Your task to perform on an android device: see tabs open on other devices in the chrome app Image 0: 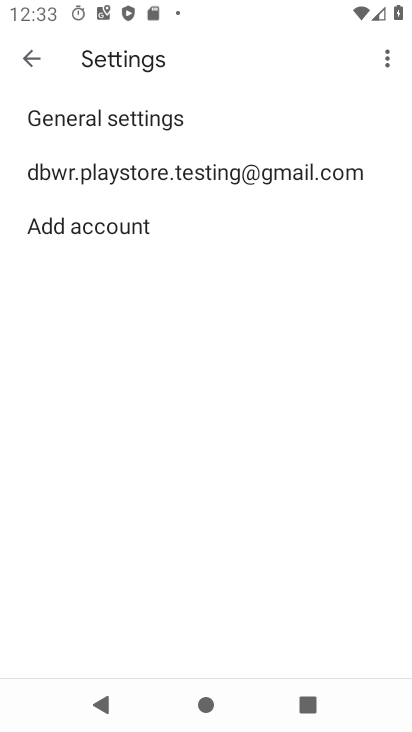
Step 0: press home button
Your task to perform on an android device: see tabs open on other devices in the chrome app Image 1: 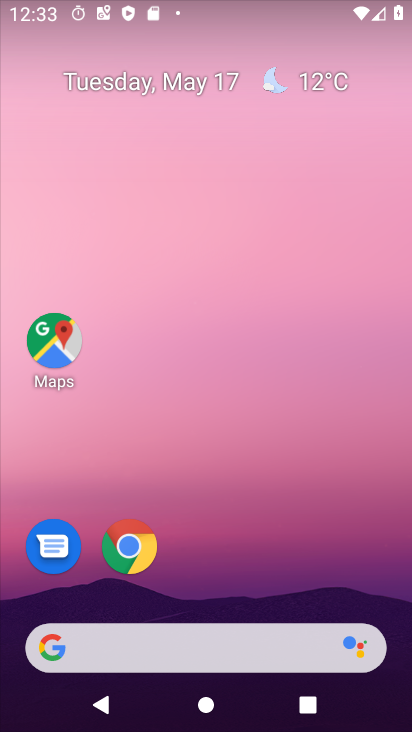
Step 1: click (144, 560)
Your task to perform on an android device: see tabs open on other devices in the chrome app Image 2: 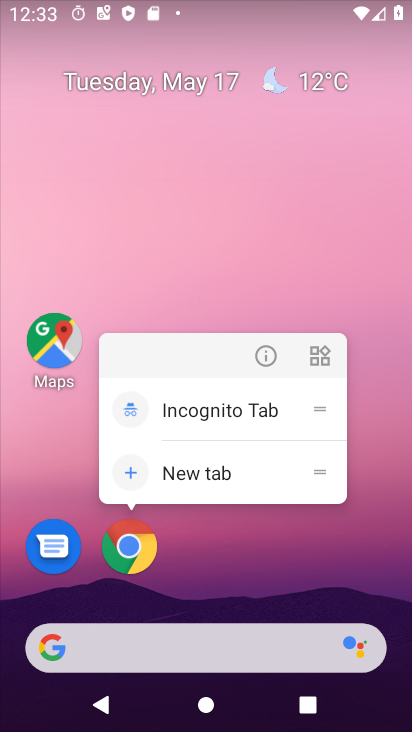
Step 2: click (143, 557)
Your task to perform on an android device: see tabs open on other devices in the chrome app Image 3: 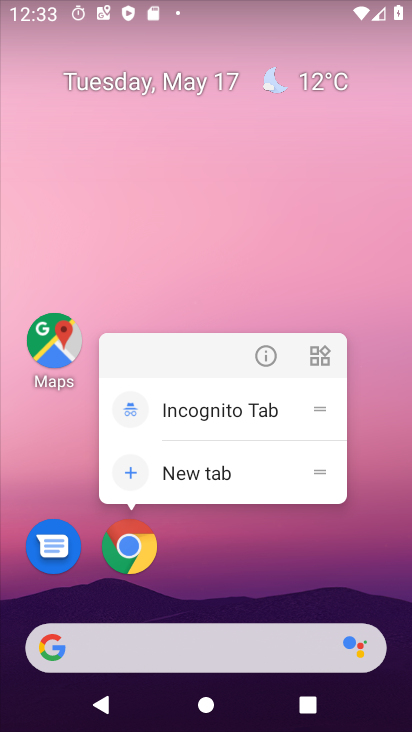
Step 3: click (131, 546)
Your task to perform on an android device: see tabs open on other devices in the chrome app Image 4: 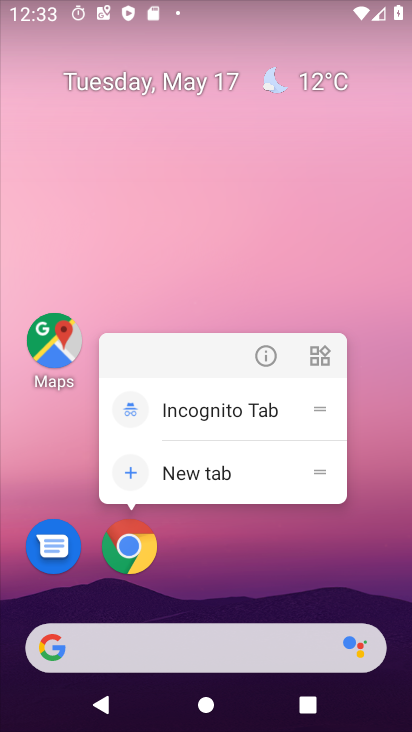
Step 4: click (121, 558)
Your task to perform on an android device: see tabs open on other devices in the chrome app Image 5: 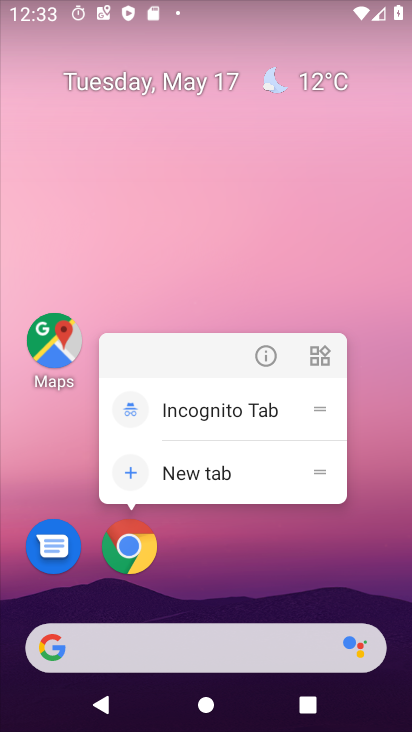
Step 5: click (130, 545)
Your task to perform on an android device: see tabs open on other devices in the chrome app Image 6: 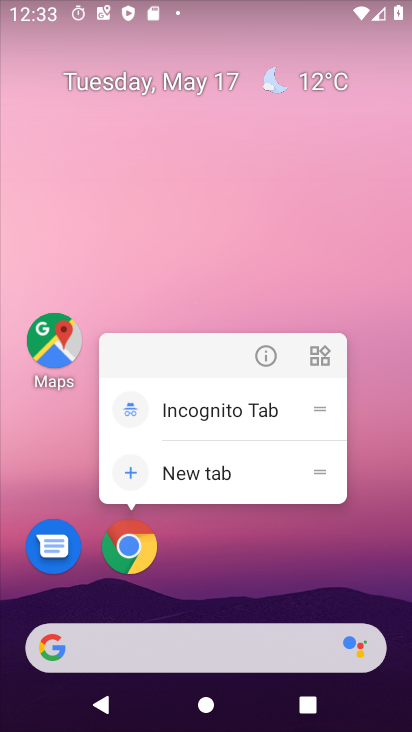
Step 6: drag from (160, 642) to (322, 204)
Your task to perform on an android device: see tabs open on other devices in the chrome app Image 7: 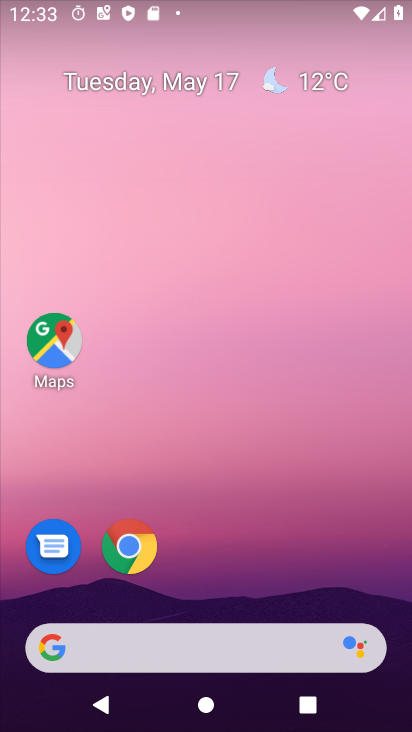
Step 7: drag from (209, 642) to (351, 120)
Your task to perform on an android device: see tabs open on other devices in the chrome app Image 8: 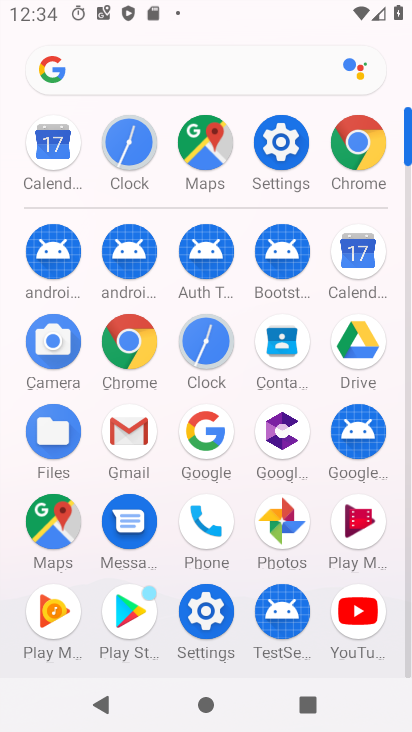
Step 8: click (358, 147)
Your task to perform on an android device: see tabs open on other devices in the chrome app Image 9: 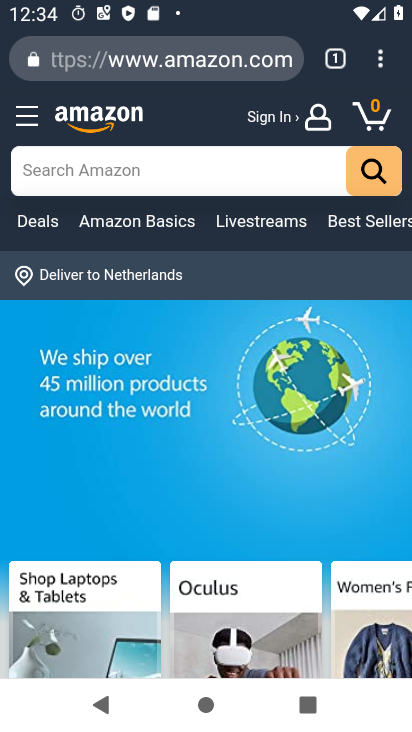
Step 9: task complete